Your task to perform on an android device: change the clock display to digital Image 0: 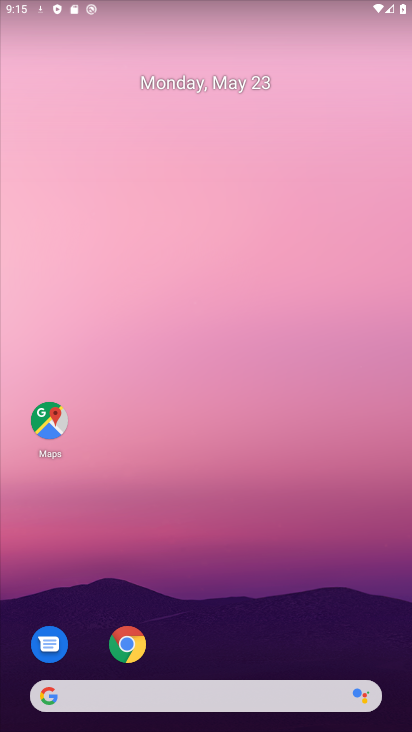
Step 0: drag from (239, 711) to (283, 107)
Your task to perform on an android device: change the clock display to digital Image 1: 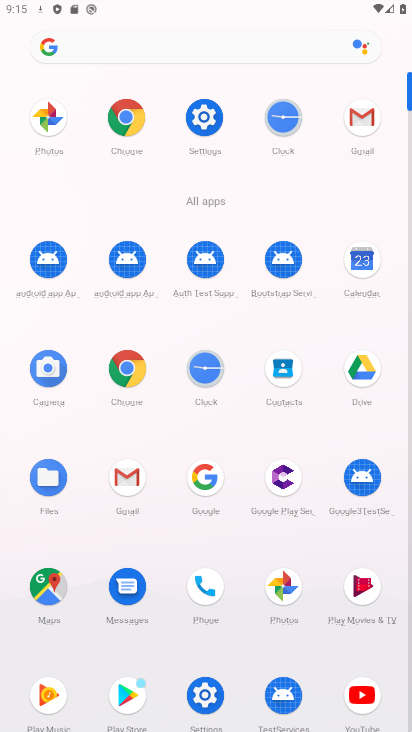
Step 1: click (216, 359)
Your task to perform on an android device: change the clock display to digital Image 2: 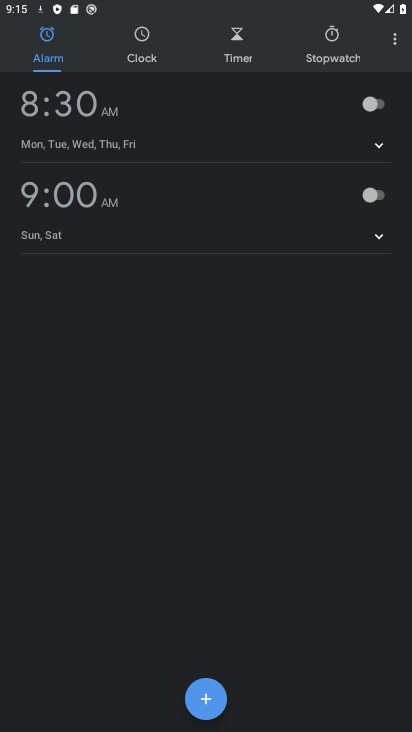
Step 2: click (391, 49)
Your task to perform on an android device: change the clock display to digital Image 3: 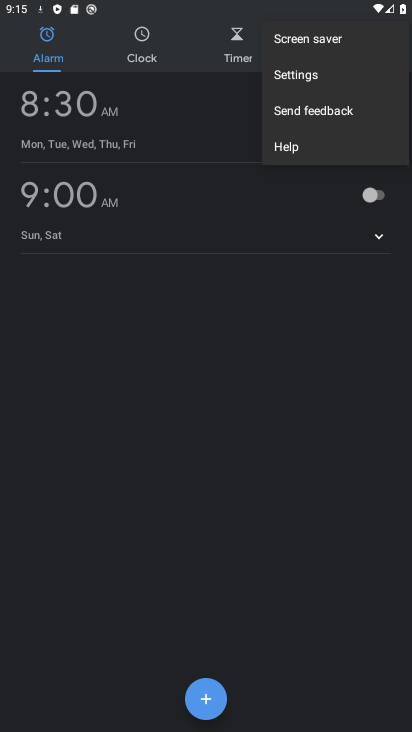
Step 3: click (293, 84)
Your task to perform on an android device: change the clock display to digital Image 4: 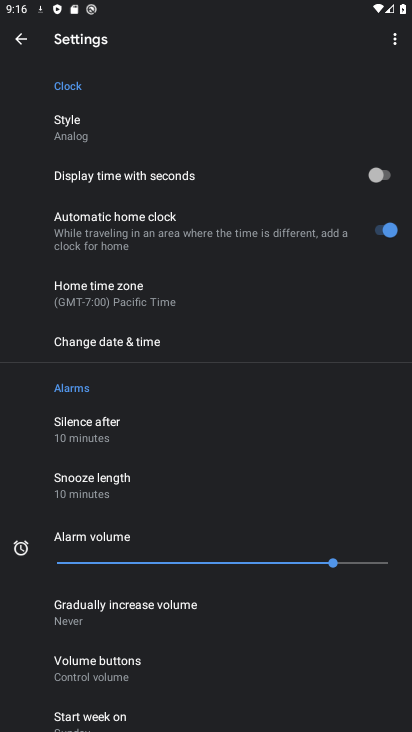
Step 4: click (126, 134)
Your task to perform on an android device: change the clock display to digital Image 5: 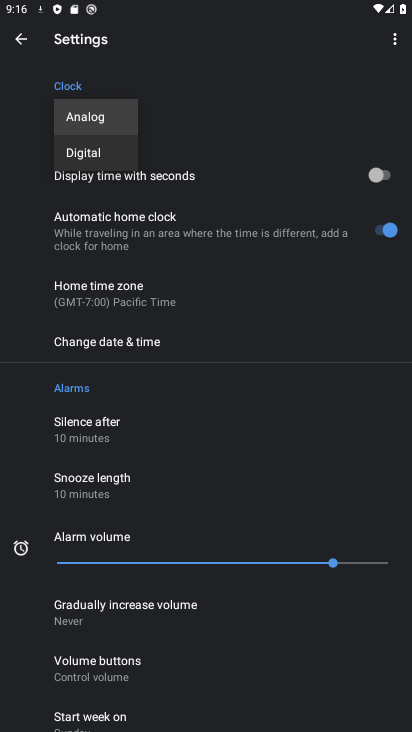
Step 5: click (107, 145)
Your task to perform on an android device: change the clock display to digital Image 6: 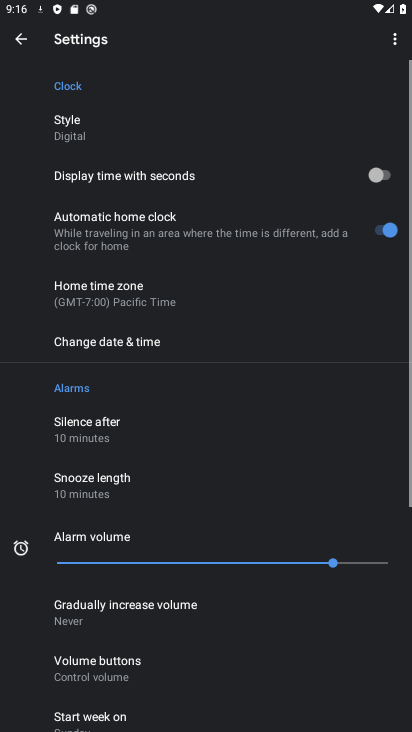
Step 6: task complete